Your task to perform on an android device: Open the calendar app, open the side menu, and click the "Day" option Image 0: 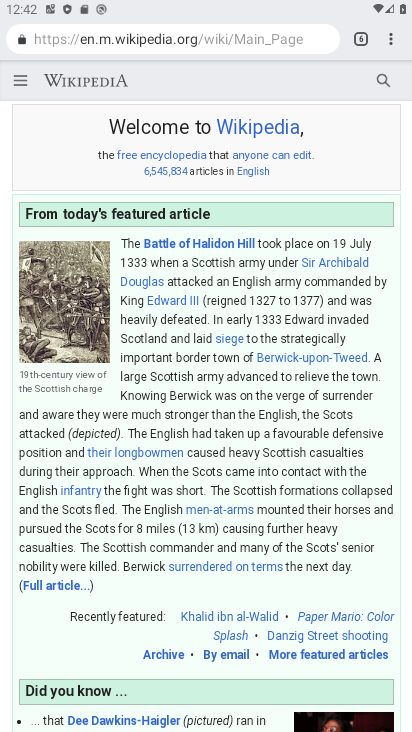
Step 0: press home button
Your task to perform on an android device: Open the calendar app, open the side menu, and click the "Day" option Image 1: 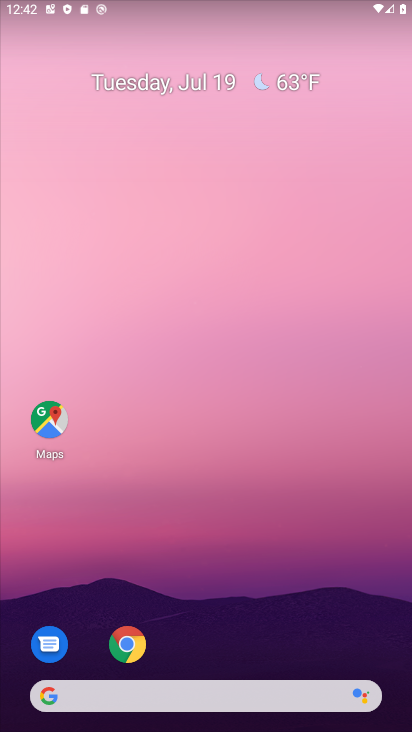
Step 1: drag from (241, 720) to (241, 302)
Your task to perform on an android device: Open the calendar app, open the side menu, and click the "Day" option Image 2: 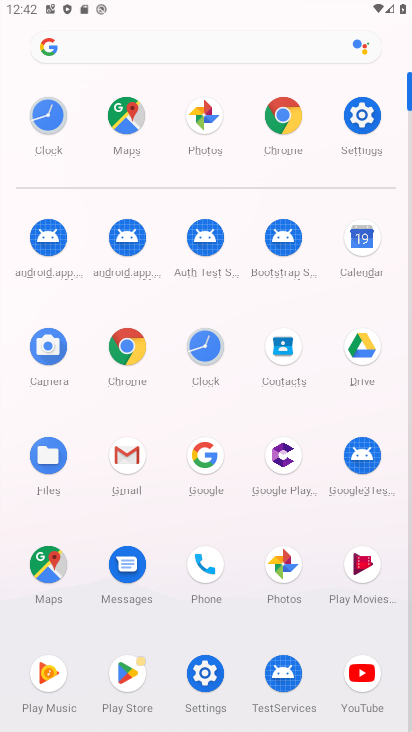
Step 2: click (365, 248)
Your task to perform on an android device: Open the calendar app, open the side menu, and click the "Day" option Image 3: 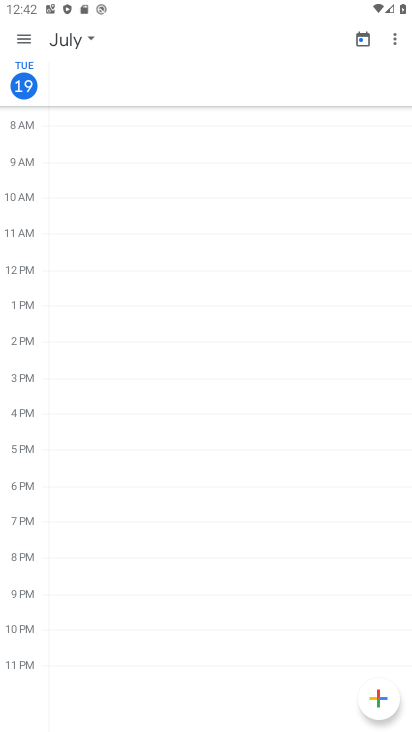
Step 3: click (22, 37)
Your task to perform on an android device: Open the calendar app, open the side menu, and click the "Day" option Image 4: 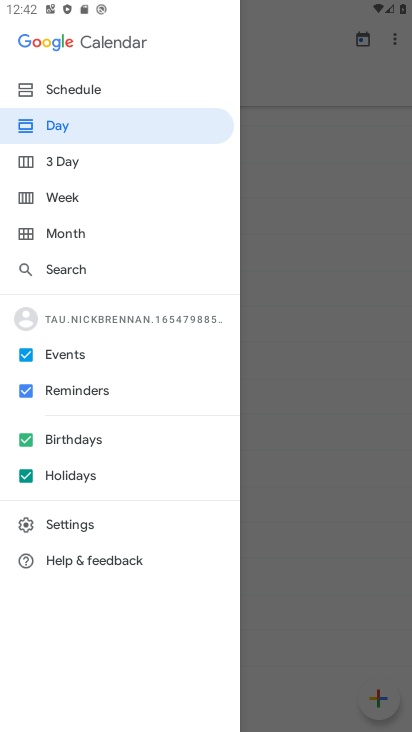
Step 4: click (66, 126)
Your task to perform on an android device: Open the calendar app, open the side menu, and click the "Day" option Image 5: 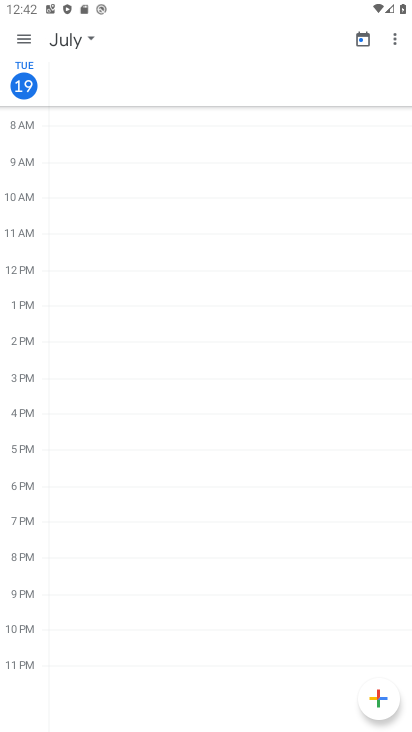
Step 5: task complete